Your task to perform on an android device: Open the stopwatch Image 0: 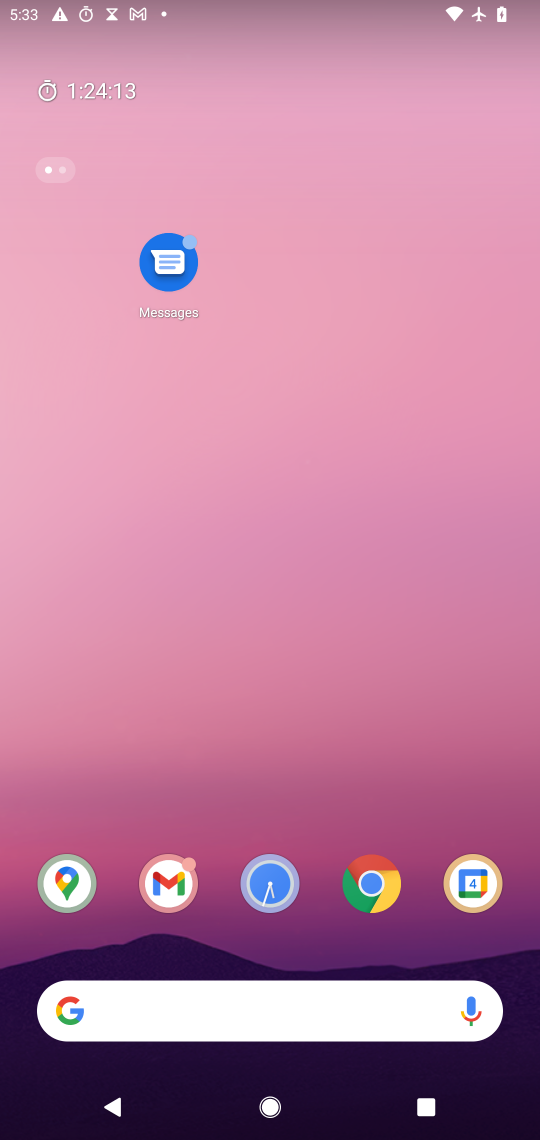
Step 0: drag from (291, 896) to (230, 10)
Your task to perform on an android device: Open the stopwatch Image 1: 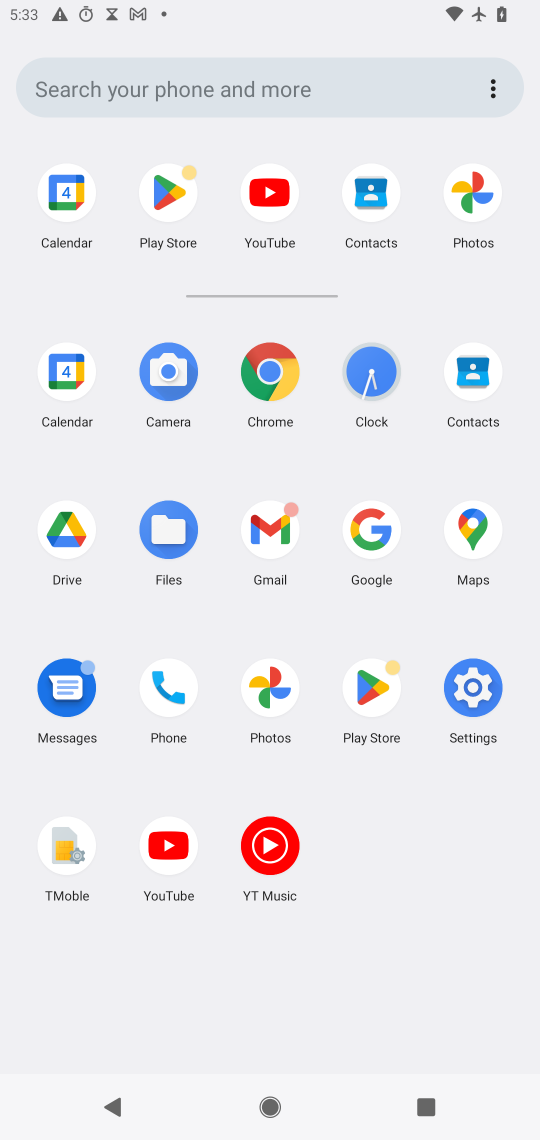
Step 1: click (368, 372)
Your task to perform on an android device: Open the stopwatch Image 2: 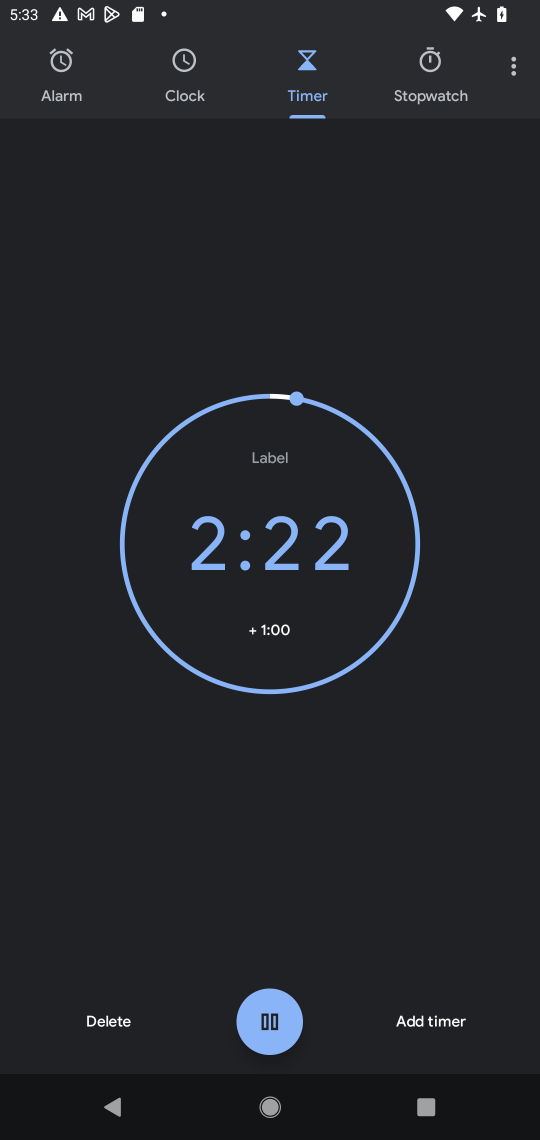
Step 2: click (431, 69)
Your task to perform on an android device: Open the stopwatch Image 3: 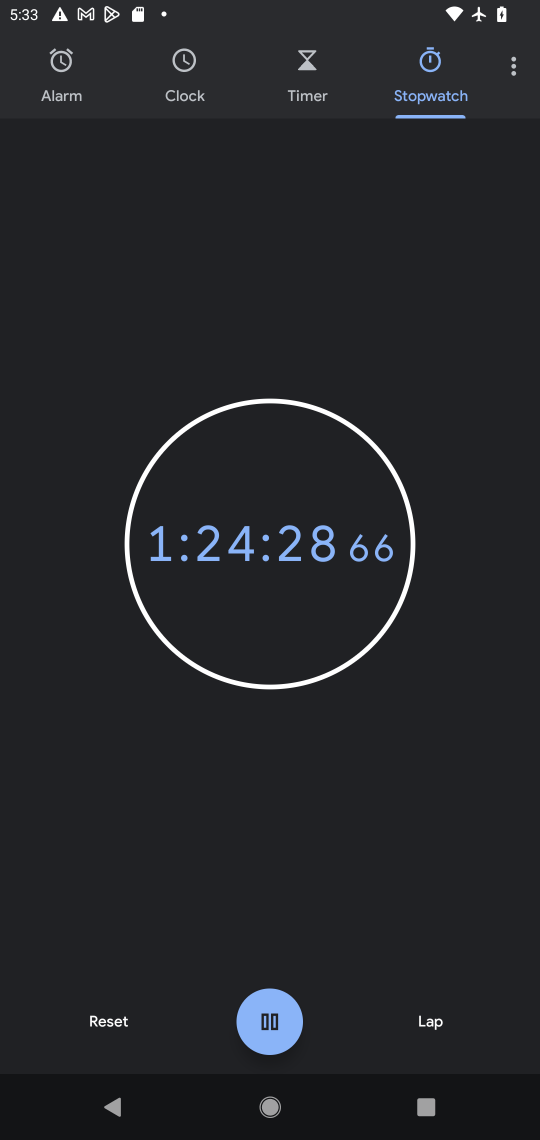
Step 3: task complete